Your task to perform on an android device: turn on the 12-hour format for clock Image 0: 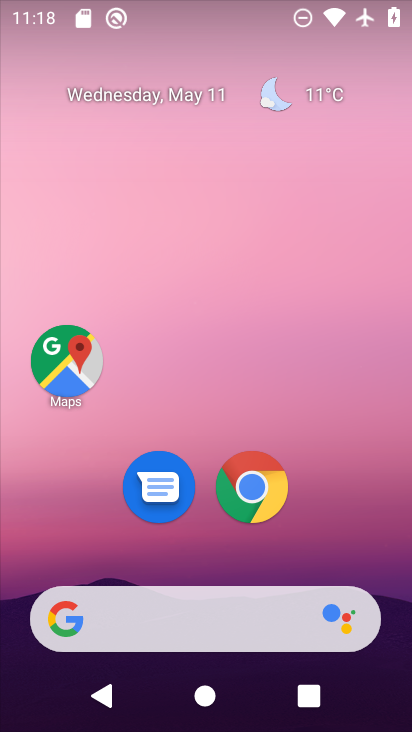
Step 0: drag from (319, 450) to (252, 16)
Your task to perform on an android device: turn on the 12-hour format for clock Image 1: 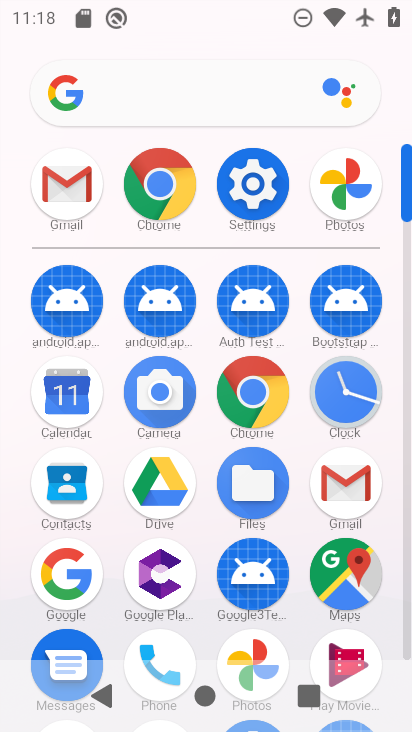
Step 1: drag from (11, 542) to (7, 312)
Your task to perform on an android device: turn on the 12-hour format for clock Image 2: 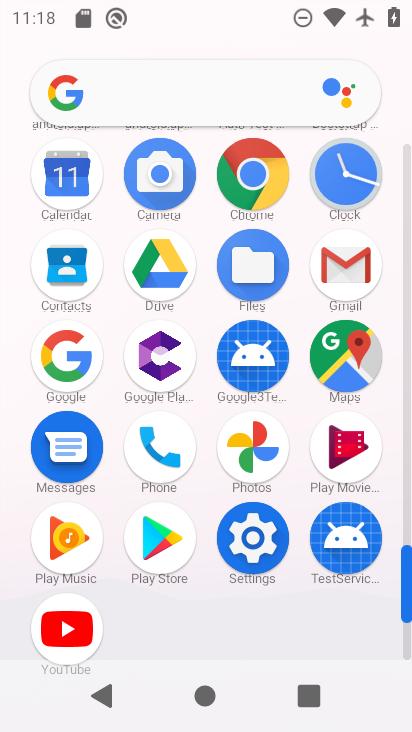
Step 2: click (344, 172)
Your task to perform on an android device: turn on the 12-hour format for clock Image 3: 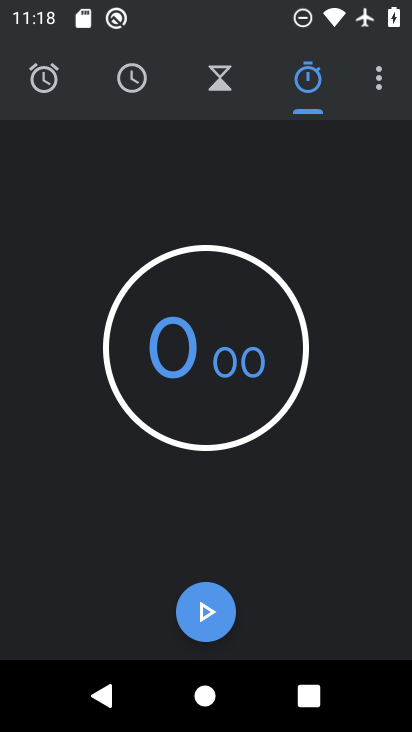
Step 3: drag from (382, 79) to (311, 160)
Your task to perform on an android device: turn on the 12-hour format for clock Image 4: 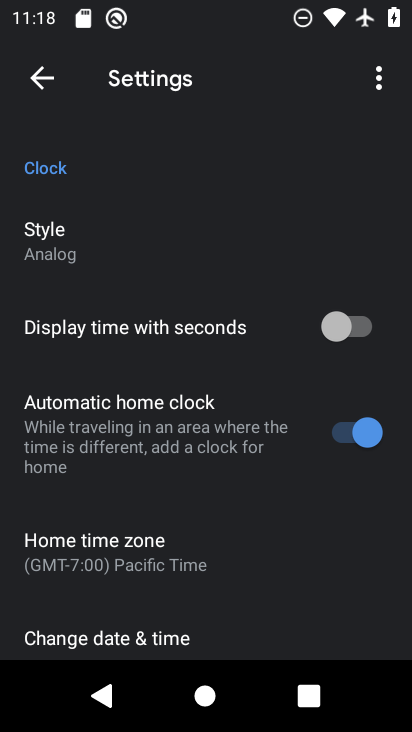
Step 4: click (137, 625)
Your task to perform on an android device: turn on the 12-hour format for clock Image 5: 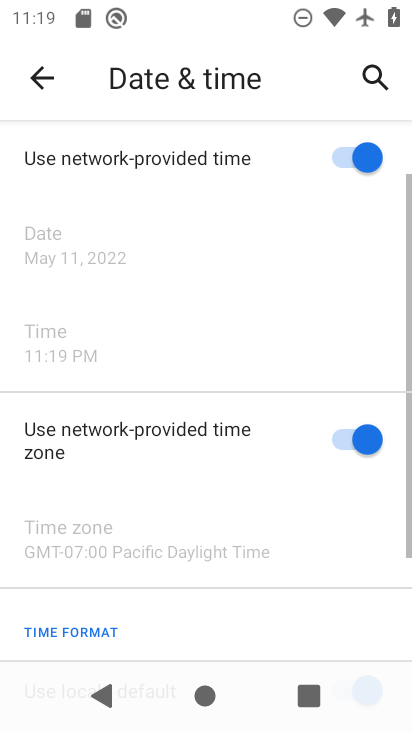
Step 5: task complete